Your task to perform on an android device: Open Wikipedia Image 0: 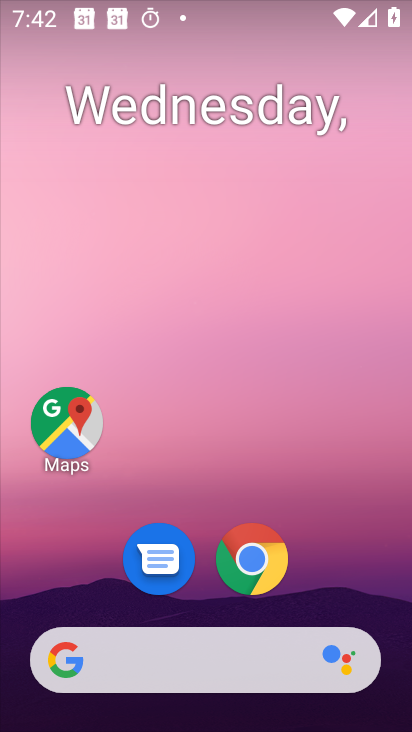
Step 0: click (262, 567)
Your task to perform on an android device: Open Wikipedia Image 1: 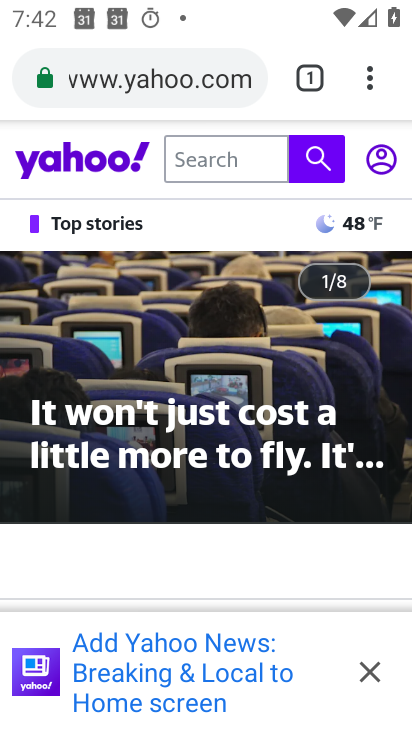
Step 1: click (97, 86)
Your task to perform on an android device: Open Wikipedia Image 2: 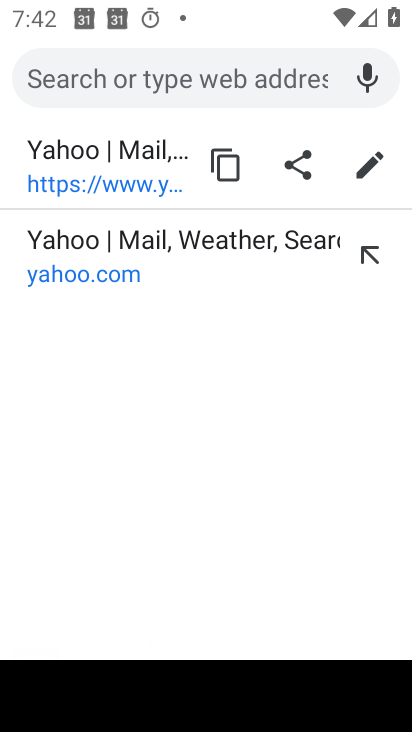
Step 2: type "wikipedia"
Your task to perform on an android device: Open Wikipedia Image 3: 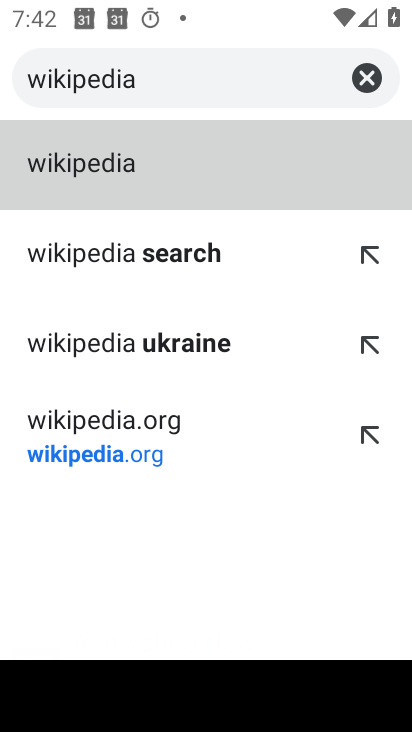
Step 3: click (119, 170)
Your task to perform on an android device: Open Wikipedia Image 4: 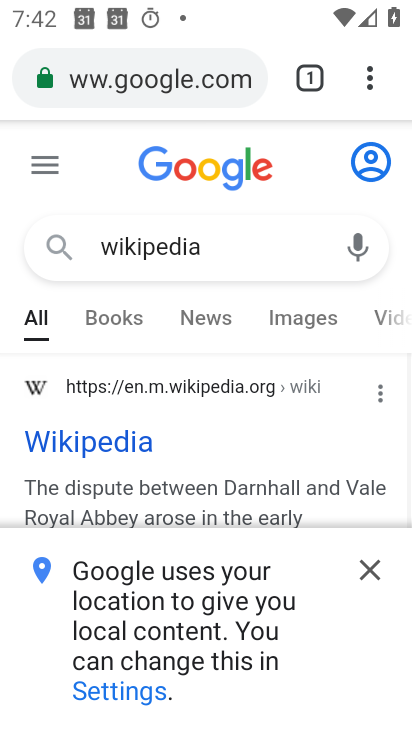
Step 4: click (73, 441)
Your task to perform on an android device: Open Wikipedia Image 5: 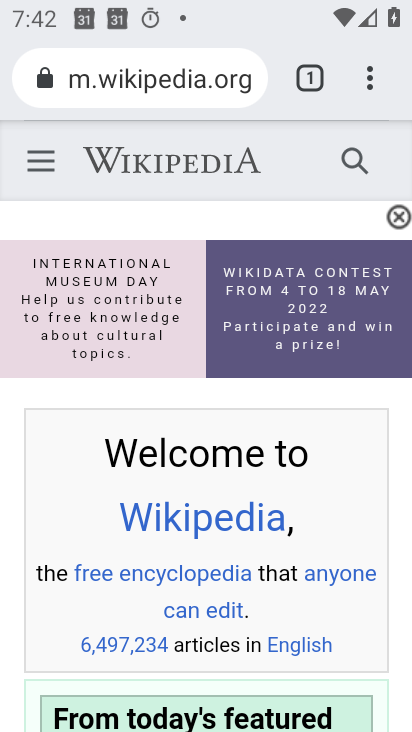
Step 5: task complete